Your task to perform on an android device: Open my contact list Image 0: 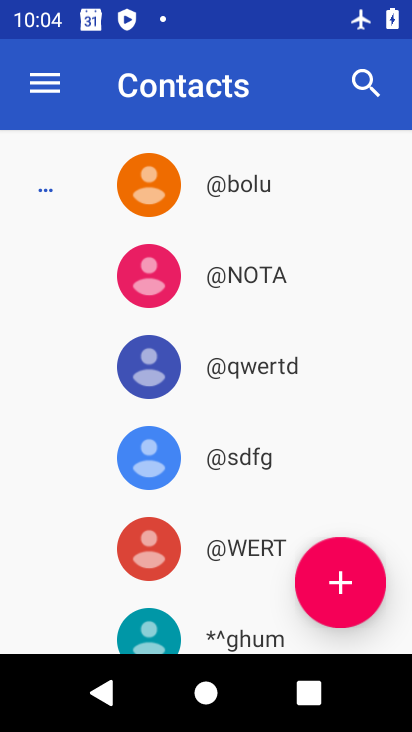
Step 0: drag from (240, 506) to (201, 264)
Your task to perform on an android device: Open my contact list Image 1: 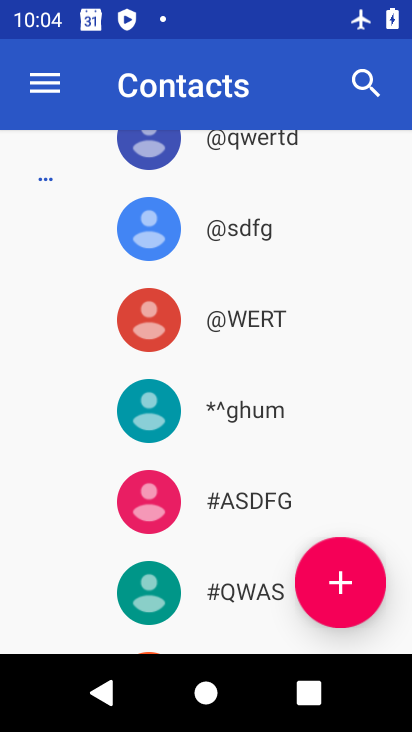
Step 1: task complete